Your task to perform on an android device: open chrome privacy settings Image 0: 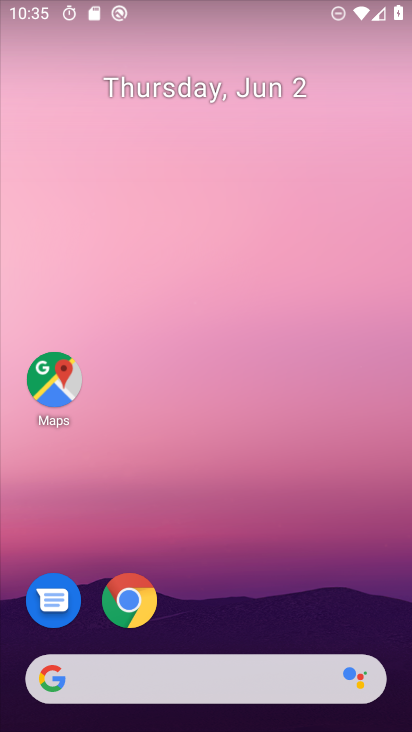
Step 0: click (130, 600)
Your task to perform on an android device: open chrome privacy settings Image 1: 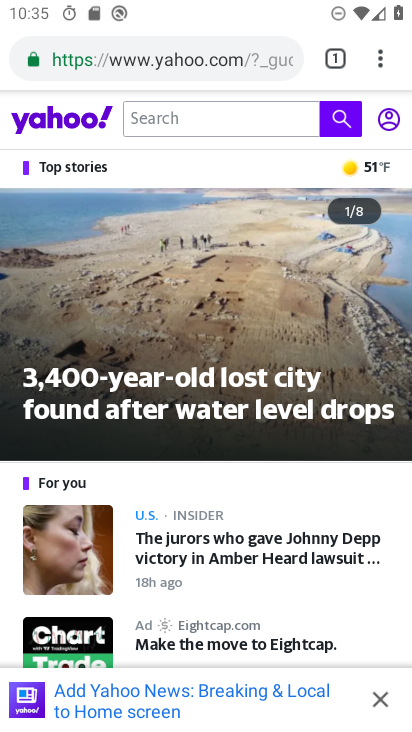
Step 1: click (372, 65)
Your task to perform on an android device: open chrome privacy settings Image 2: 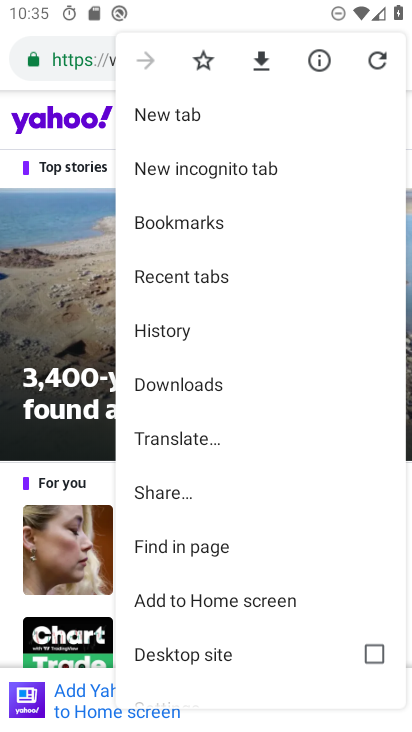
Step 2: drag from (288, 542) to (276, 410)
Your task to perform on an android device: open chrome privacy settings Image 3: 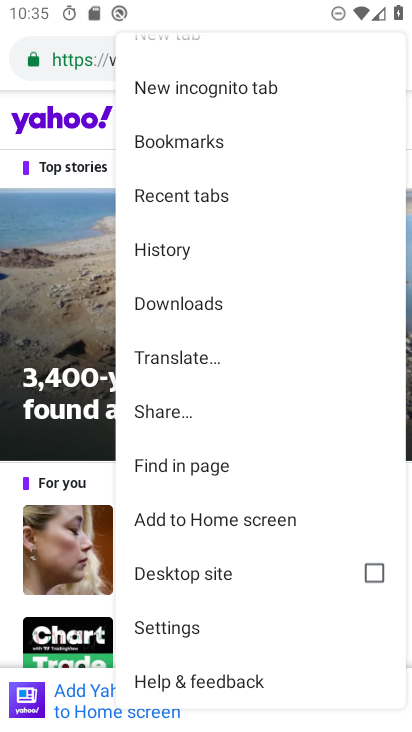
Step 3: click (204, 629)
Your task to perform on an android device: open chrome privacy settings Image 4: 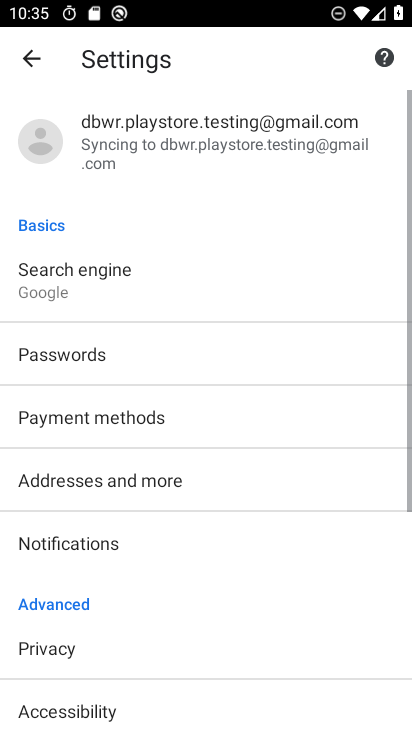
Step 4: click (130, 657)
Your task to perform on an android device: open chrome privacy settings Image 5: 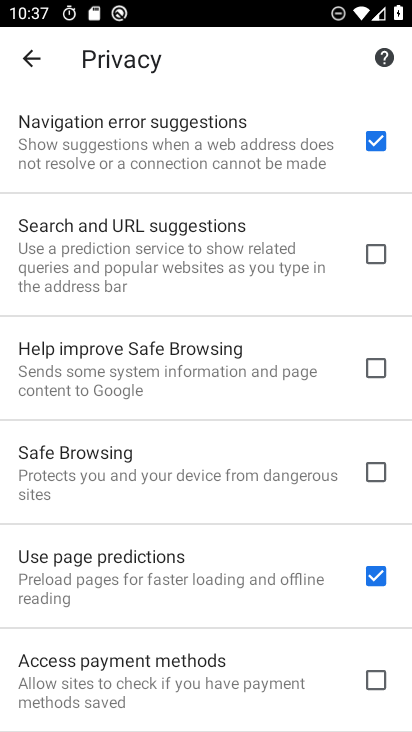
Step 5: task complete